Your task to perform on an android device: turn on location history Image 0: 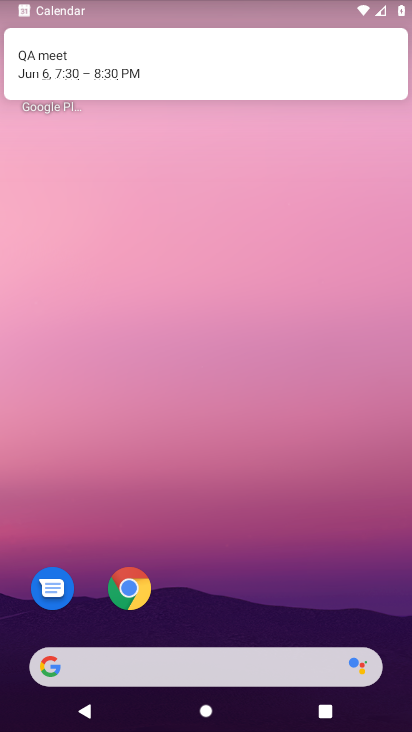
Step 0: drag from (184, 578) to (206, 14)
Your task to perform on an android device: turn on location history Image 1: 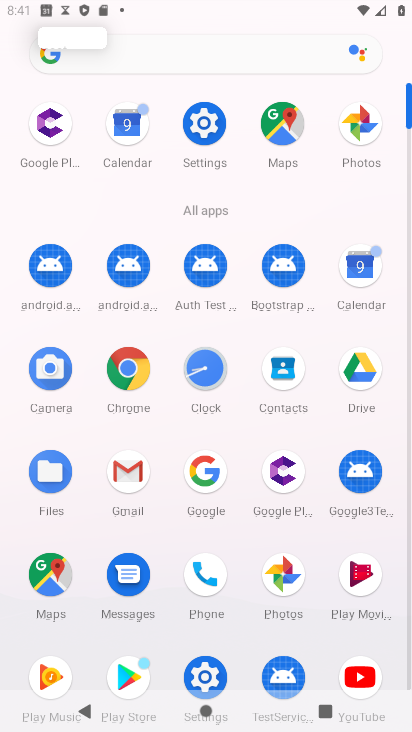
Step 1: click (210, 126)
Your task to perform on an android device: turn on location history Image 2: 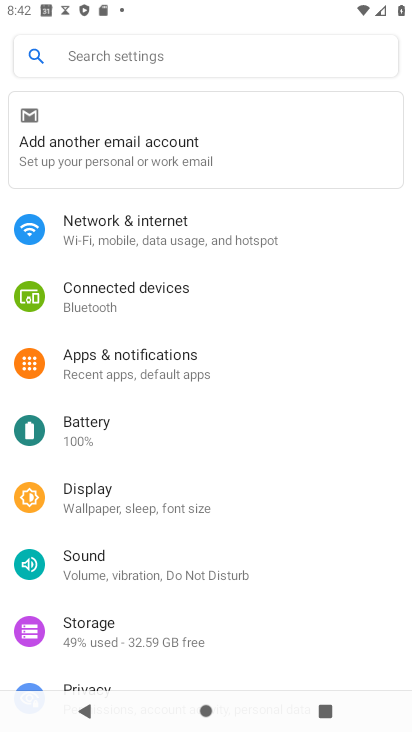
Step 2: drag from (137, 586) to (195, 281)
Your task to perform on an android device: turn on location history Image 3: 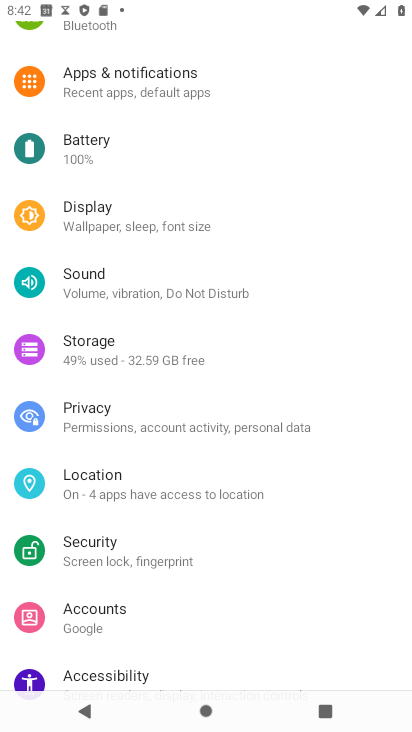
Step 3: click (196, 485)
Your task to perform on an android device: turn on location history Image 4: 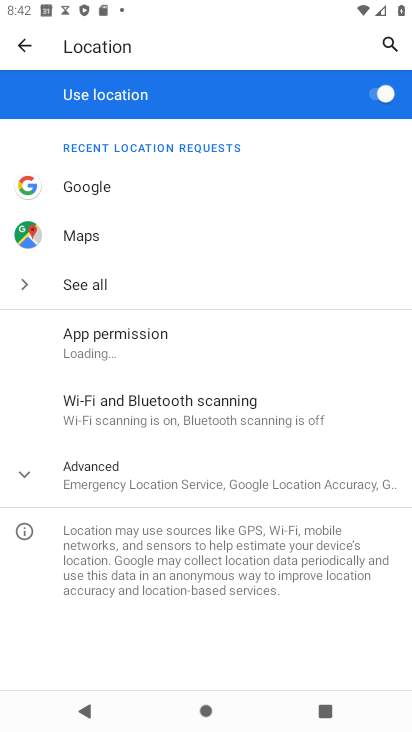
Step 4: click (130, 475)
Your task to perform on an android device: turn on location history Image 5: 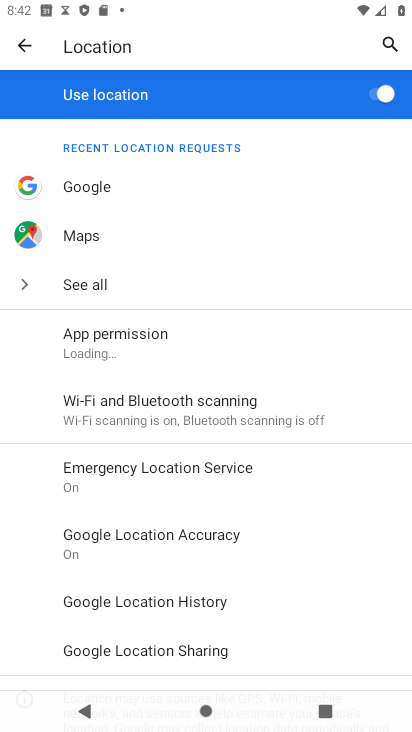
Step 5: click (188, 605)
Your task to perform on an android device: turn on location history Image 6: 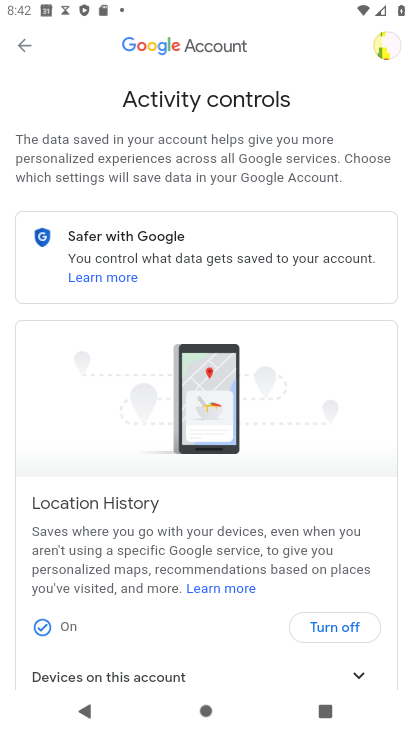
Step 6: task complete